Your task to perform on an android device: Search for pizza restaurants on Maps Image 0: 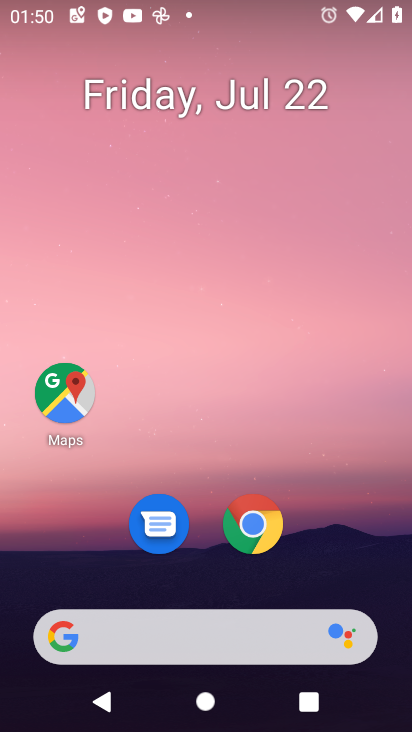
Step 0: press home button
Your task to perform on an android device: Search for pizza restaurants on Maps Image 1: 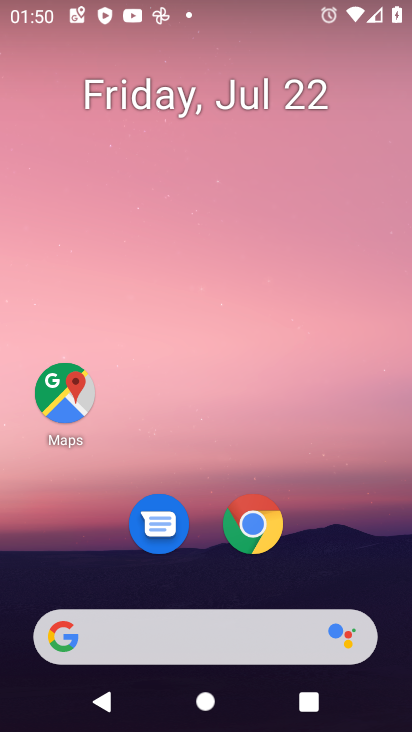
Step 1: click (64, 401)
Your task to perform on an android device: Search for pizza restaurants on Maps Image 2: 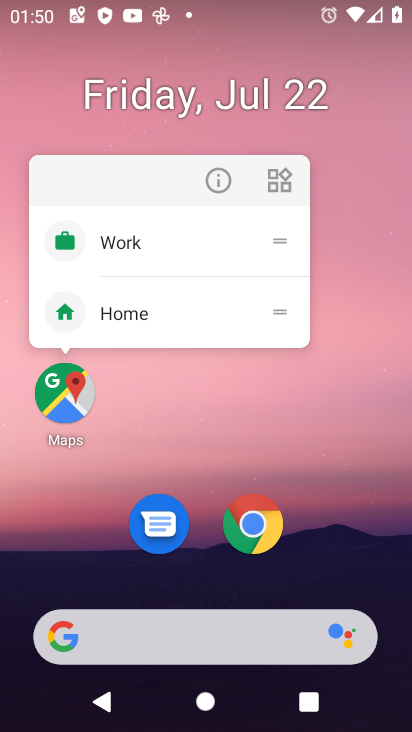
Step 2: click (64, 400)
Your task to perform on an android device: Search for pizza restaurants on Maps Image 3: 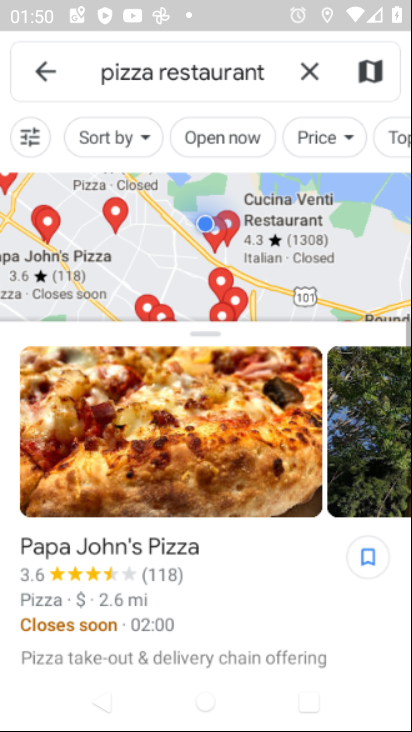
Step 3: task complete